Your task to perform on an android device: turn notification dots off Image 0: 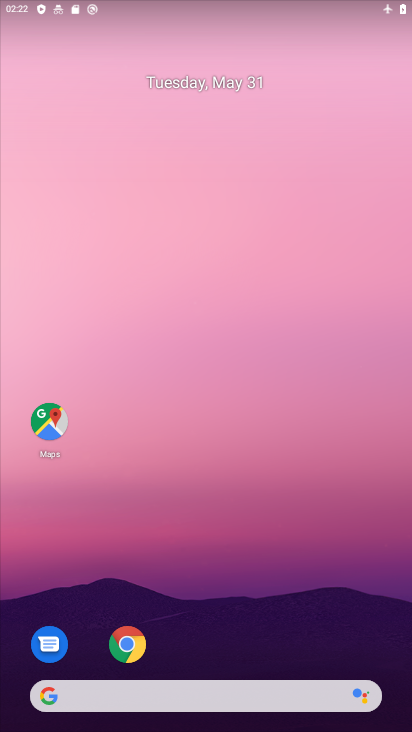
Step 0: drag from (279, 591) to (217, 161)
Your task to perform on an android device: turn notification dots off Image 1: 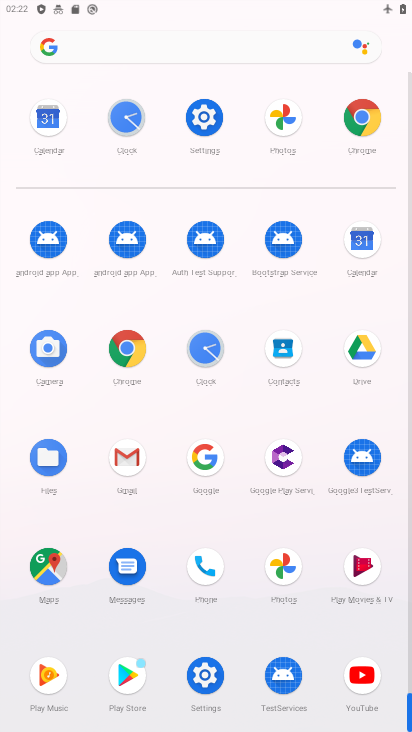
Step 1: click (199, 113)
Your task to perform on an android device: turn notification dots off Image 2: 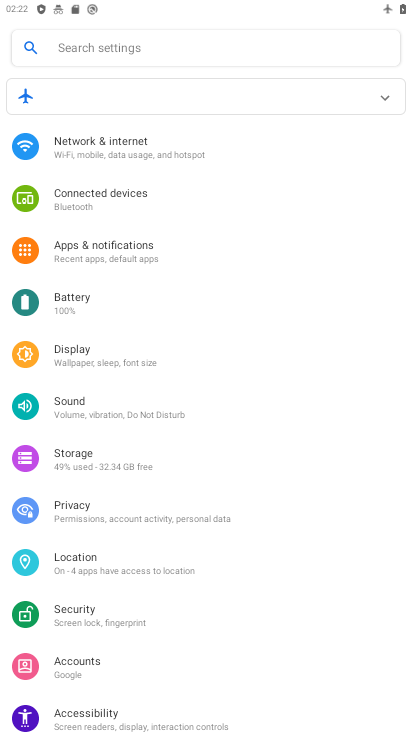
Step 2: click (104, 244)
Your task to perform on an android device: turn notification dots off Image 3: 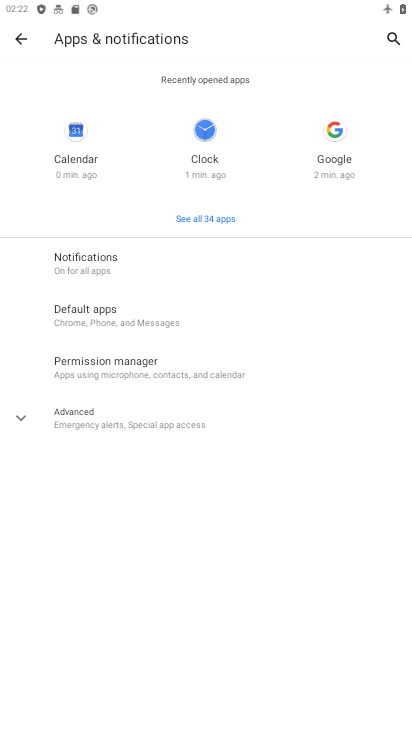
Step 3: click (96, 255)
Your task to perform on an android device: turn notification dots off Image 4: 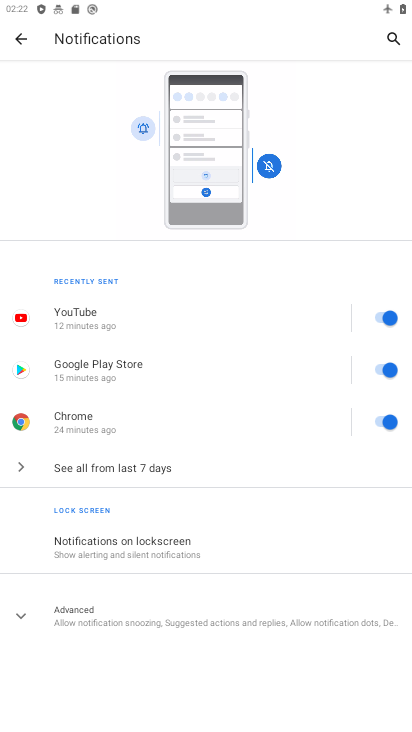
Step 4: click (163, 610)
Your task to perform on an android device: turn notification dots off Image 5: 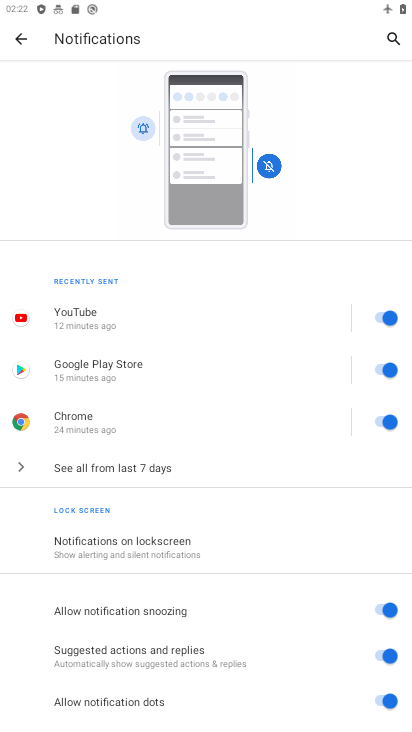
Step 5: drag from (217, 620) to (274, 269)
Your task to perform on an android device: turn notification dots off Image 6: 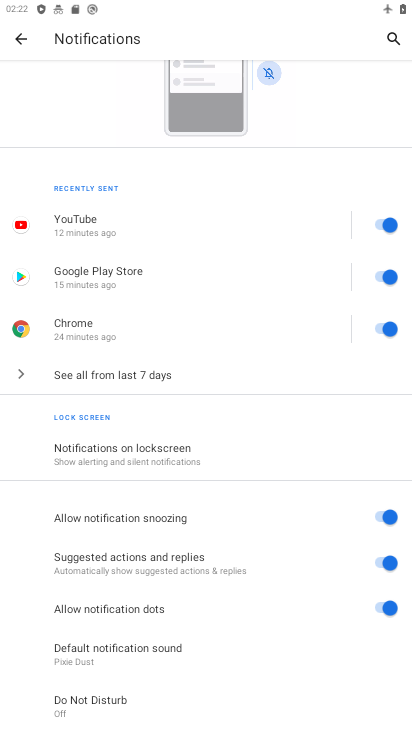
Step 6: click (373, 602)
Your task to perform on an android device: turn notification dots off Image 7: 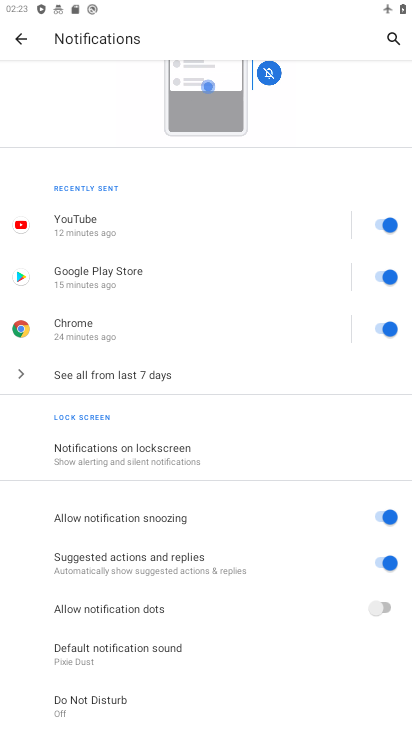
Step 7: task complete